Your task to perform on an android device: Empty the shopping cart on bestbuy. Add macbook to the cart on bestbuy, then select checkout. Image 0: 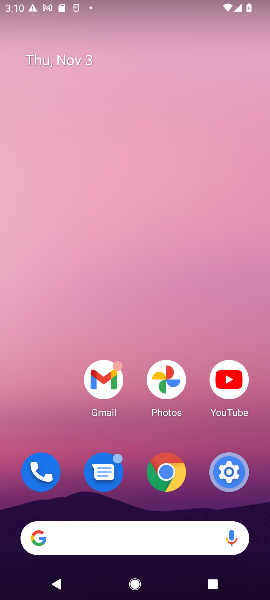
Step 0: click (90, 533)
Your task to perform on an android device: Empty the shopping cart on bestbuy. Add macbook to the cart on bestbuy, then select checkout. Image 1: 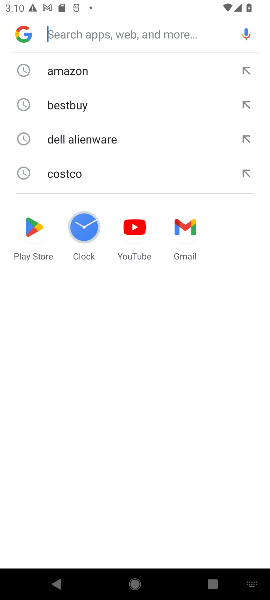
Step 1: click (121, 108)
Your task to perform on an android device: Empty the shopping cart on bestbuy. Add macbook to the cart on bestbuy, then select checkout. Image 2: 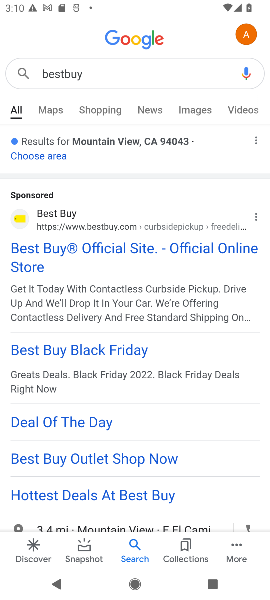
Step 2: click (54, 249)
Your task to perform on an android device: Empty the shopping cart on bestbuy. Add macbook to the cart on bestbuy, then select checkout. Image 3: 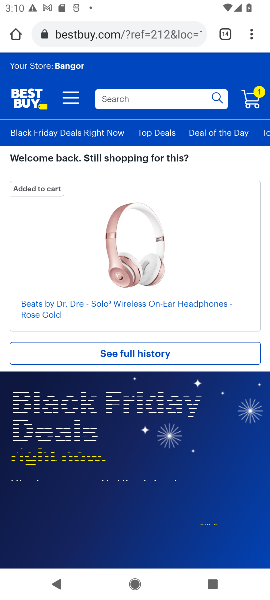
Step 3: click (162, 92)
Your task to perform on an android device: Empty the shopping cart on bestbuy. Add macbook to the cart on bestbuy, then select checkout. Image 4: 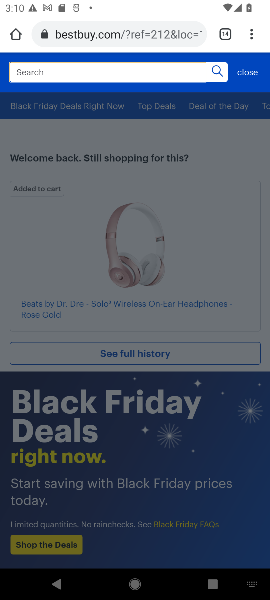
Step 4: type "macbook"
Your task to perform on an android device: Empty the shopping cart on bestbuy. Add macbook to the cart on bestbuy, then select checkout. Image 5: 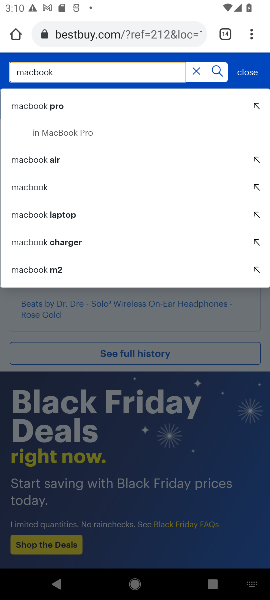
Step 5: click (88, 117)
Your task to perform on an android device: Empty the shopping cart on bestbuy. Add macbook to the cart on bestbuy, then select checkout. Image 6: 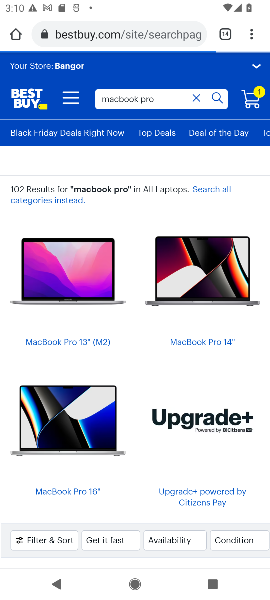
Step 6: click (93, 290)
Your task to perform on an android device: Empty the shopping cart on bestbuy. Add macbook to the cart on bestbuy, then select checkout. Image 7: 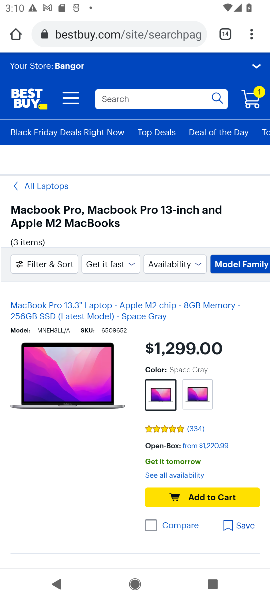
Step 7: click (126, 97)
Your task to perform on an android device: Empty the shopping cart on bestbuy. Add macbook to the cart on bestbuy, then select checkout. Image 8: 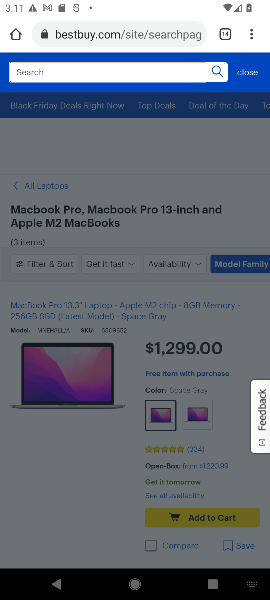
Step 8: task complete